Your task to perform on an android device: What's on my calendar tomorrow? Image 0: 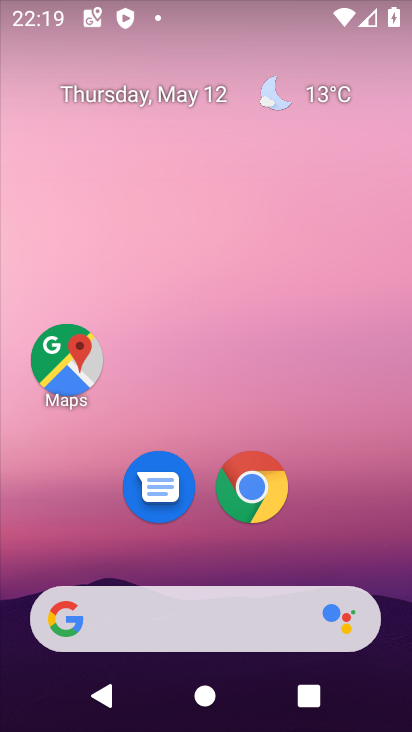
Step 0: click (147, 97)
Your task to perform on an android device: What's on my calendar tomorrow? Image 1: 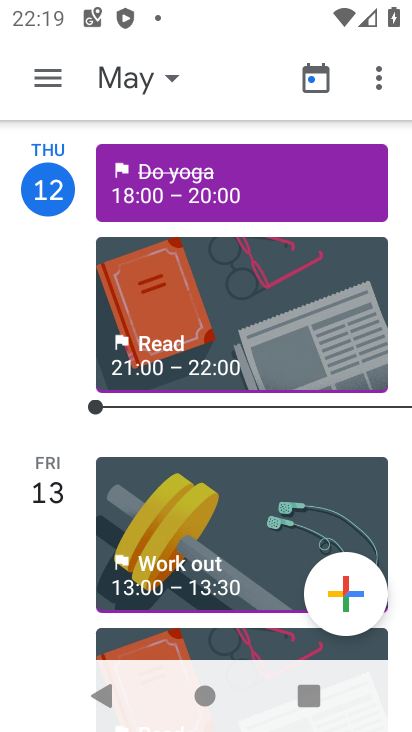
Step 1: click (156, 85)
Your task to perform on an android device: What's on my calendar tomorrow? Image 2: 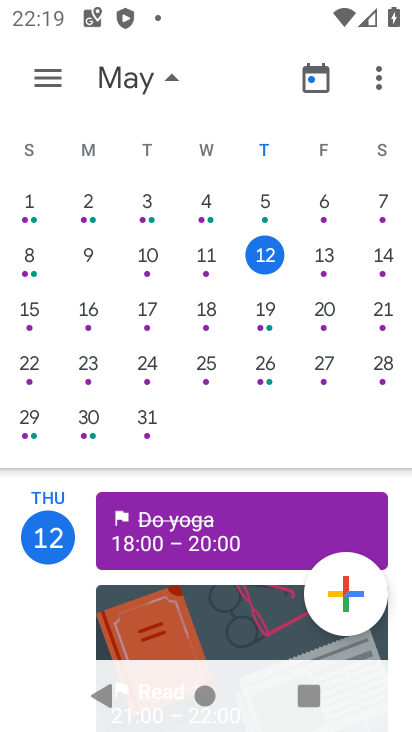
Step 2: click (325, 259)
Your task to perform on an android device: What's on my calendar tomorrow? Image 3: 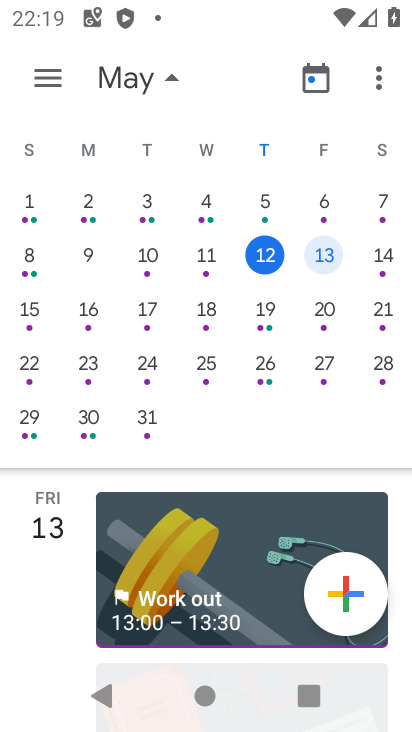
Step 3: task complete